Your task to perform on an android device: change the clock style Image 0: 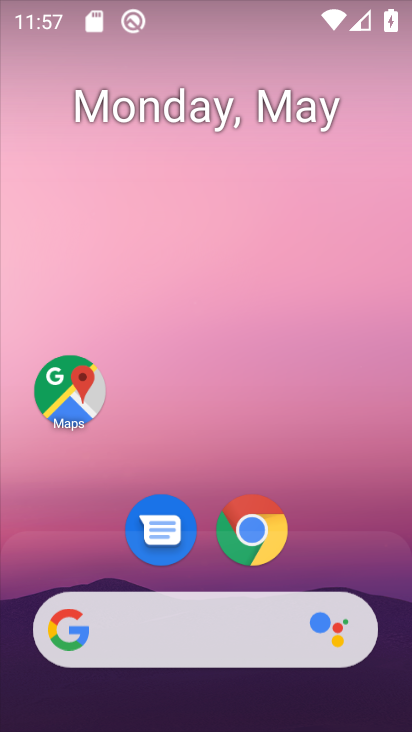
Step 0: drag from (344, 536) to (288, 9)
Your task to perform on an android device: change the clock style Image 1: 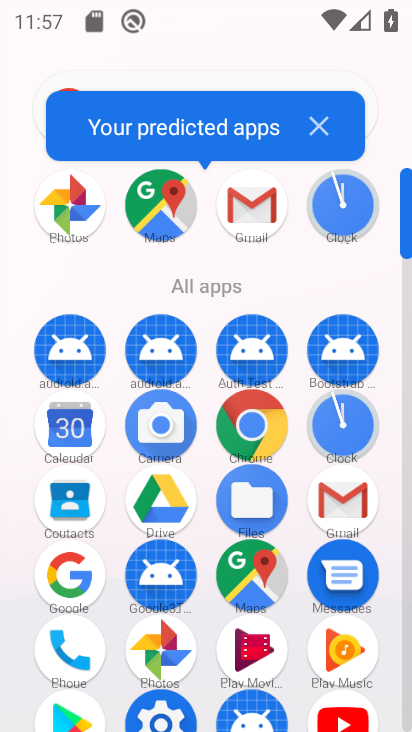
Step 1: drag from (16, 580) to (29, 149)
Your task to perform on an android device: change the clock style Image 2: 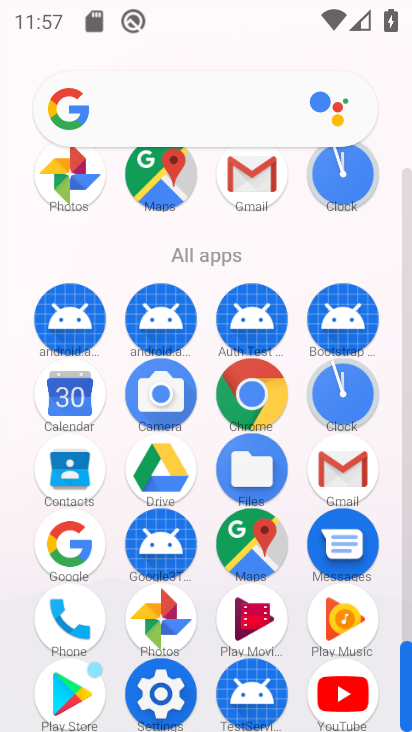
Step 2: click (340, 391)
Your task to perform on an android device: change the clock style Image 3: 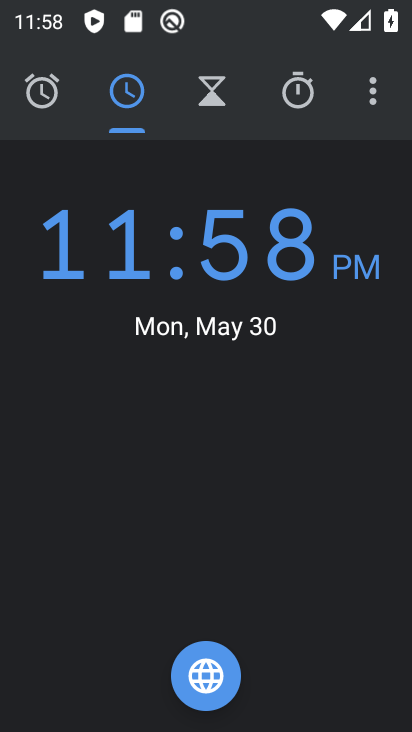
Step 3: drag from (368, 86) to (289, 177)
Your task to perform on an android device: change the clock style Image 4: 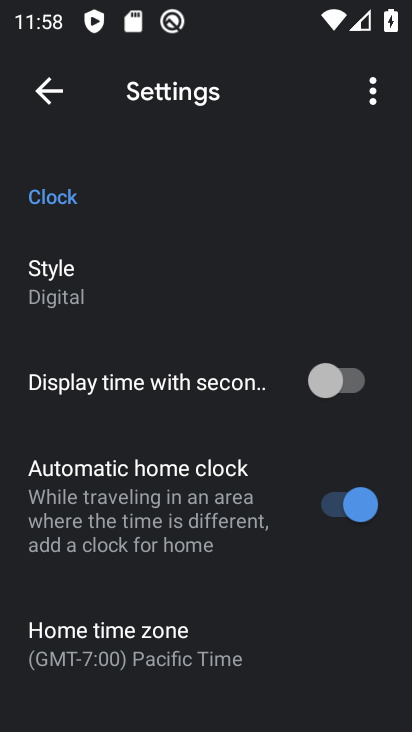
Step 4: drag from (113, 509) to (162, 166)
Your task to perform on an android device: change the clock style Image 5: 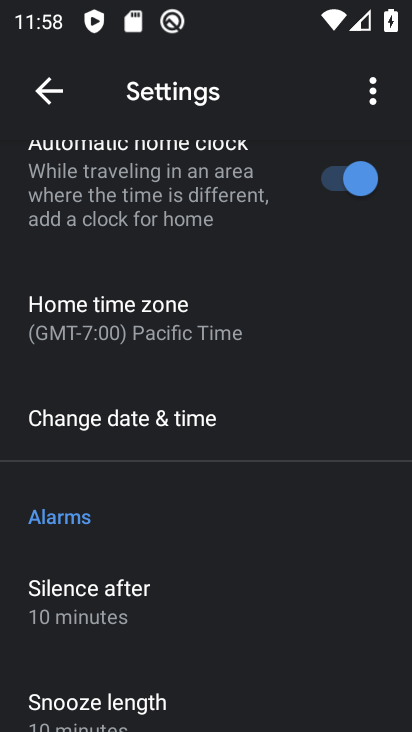
Step 5: drag from (224, 595) to (225, 190)
Your task to perform on an android device: change the clock style Image 6: 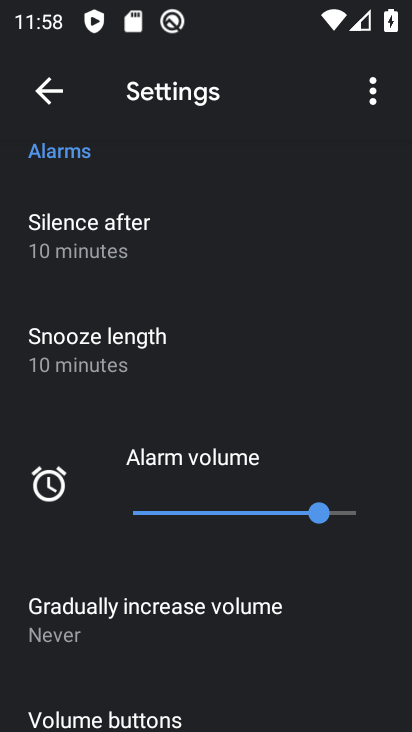
Step 6: drag from (204, 575) to (204, 198)
Your task to perform on an android device: change the clock style Image 7: 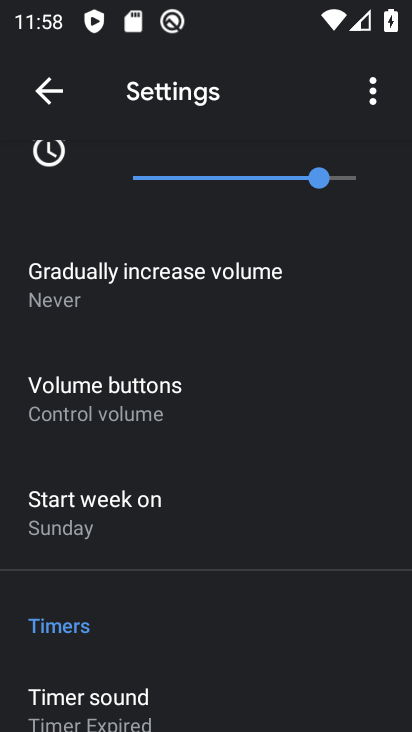
Step 7: drag from (204, 208) to (218, 576)
Your task to perform on an android device: change the clock style Image 8: 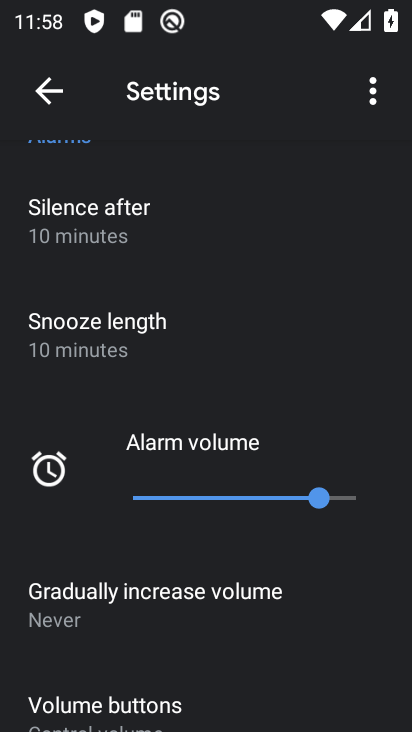
Step 8: drag from (272, 206) to (251, 640)
Your task to perform on an android device: change the clock style Image 9: 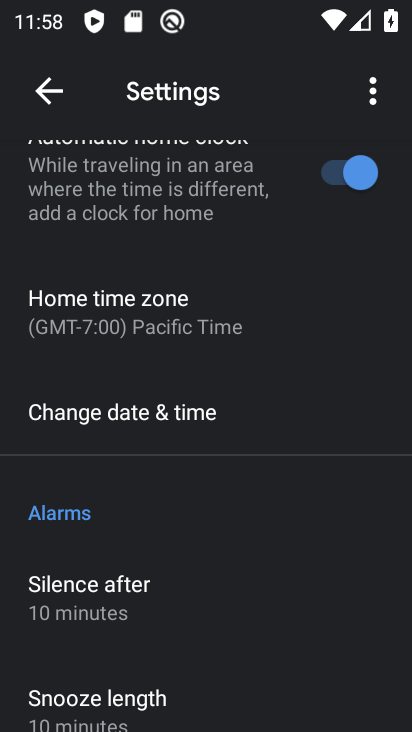
Step 9: drag from (246, 270) to (225, 586)
Your task to perform on an android device: change the clock style Image 10: 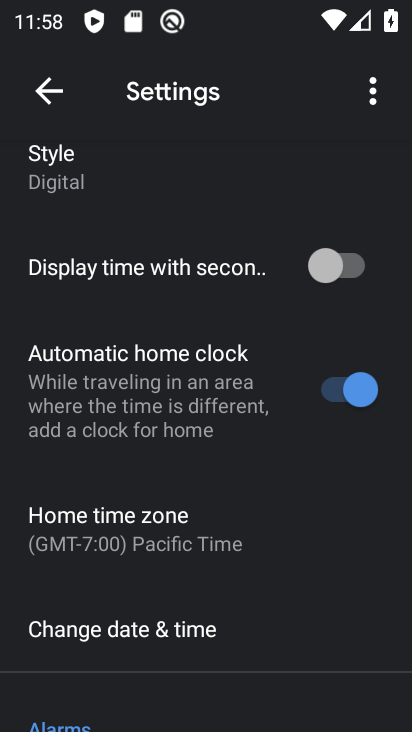
Step 10: drag from (181, 217) to (181, 558)
Your task to perform on an android device: change the clock style Image 11: 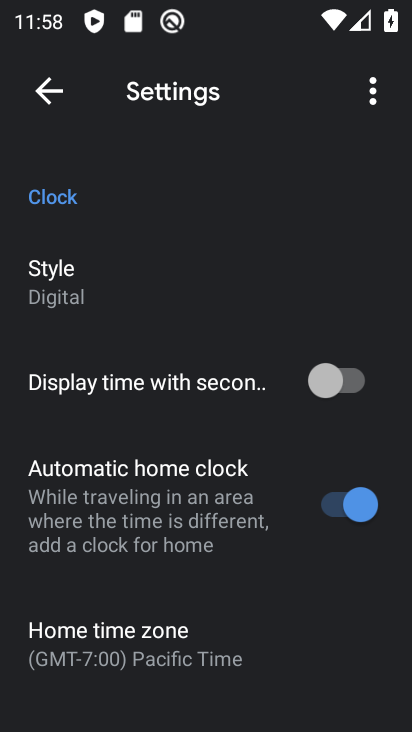
Step 11: click (101, 291)
Your task to perform on an android device: change the clock style Image 12: 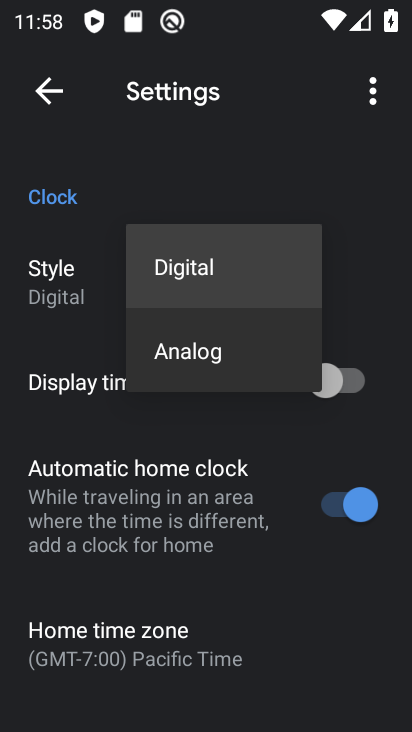
Step 12: click (151, 316)
Your task to perform on an android device: change the clock style Image 13: 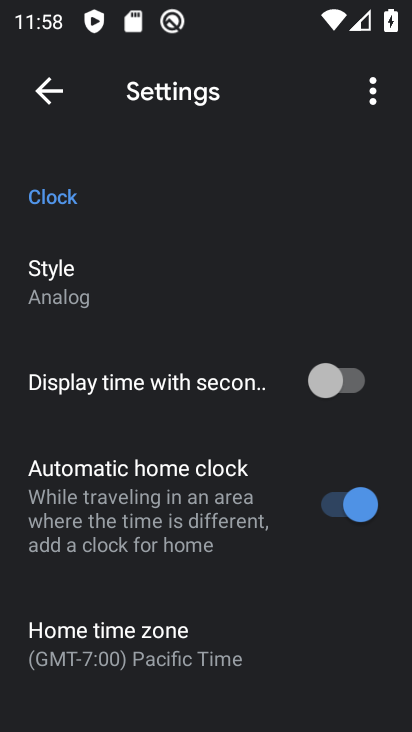
Step 13: task complete